Your task to perform on an android device: turn smart compose on in the gmail app Image 0: 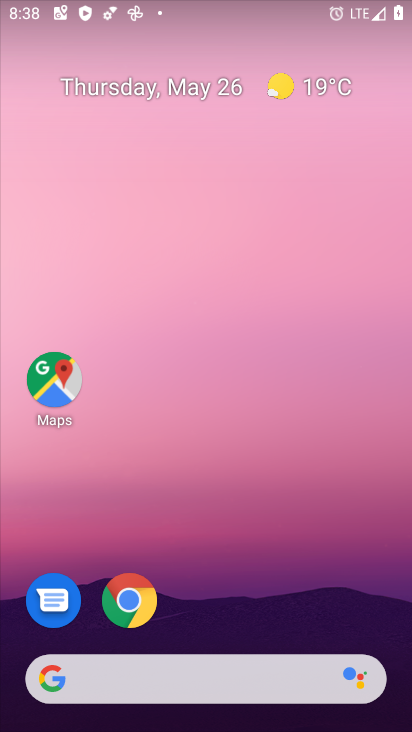
Step 0: press home button
Your task to perform on an android device: turn smart compose on in the gmail app Image 1: 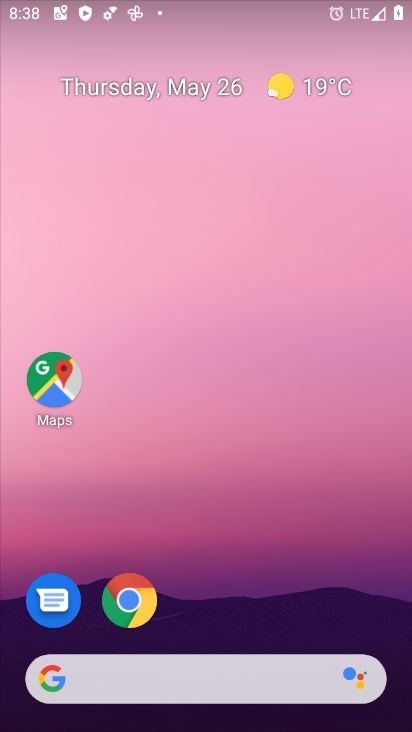
Step 1: drag from (298, 632) to (262, 2)
Your task to perform on an android device: turn smart compose on in the gmail app Image 2: 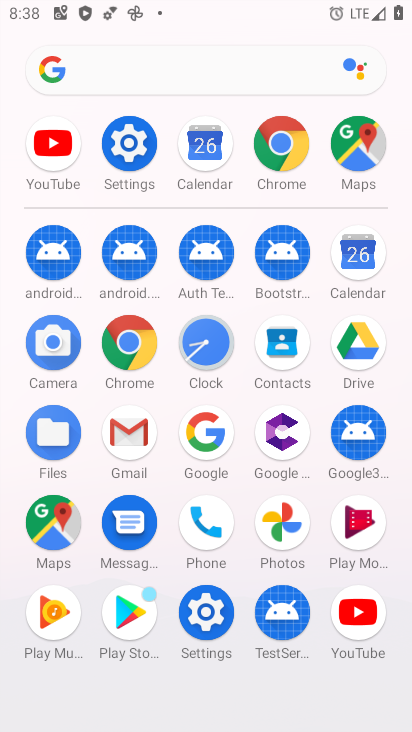
Step 2: click (127, 430)
Your task to perform on an android device: turn smart compose on in the gmail app Image 3: 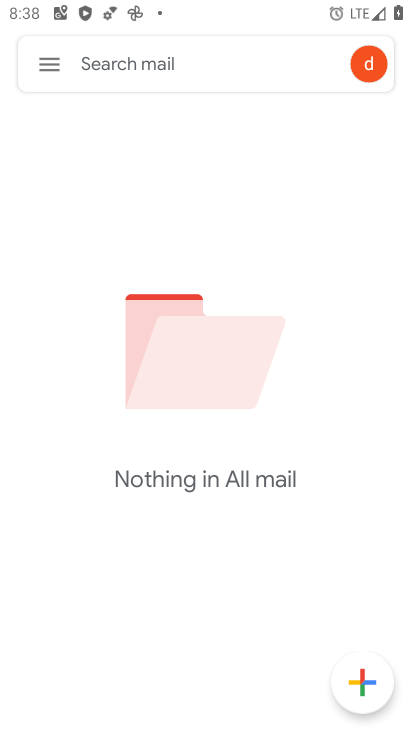
Step 3: click (62, 74)
Your task to perform on an android device: turn smart compose on in the gmail app Image 4: 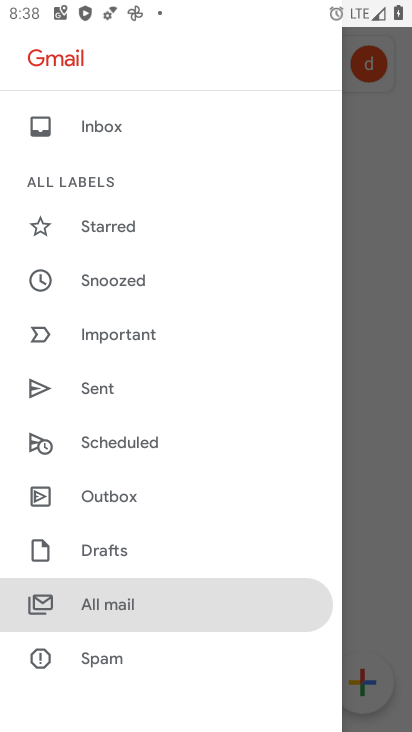
Step 4: drag from (230, 544) to (189, 2)
Your task to perform on an android device: turn smart compose on in the gmail app Image 5: 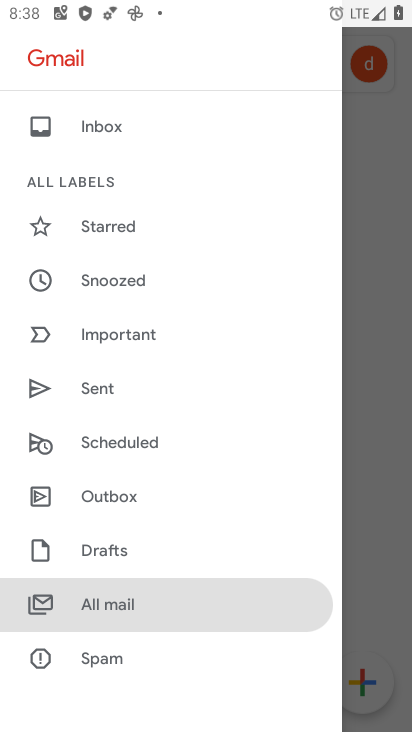
Step 5: drag from (276, 467) to (248, 7)
Your task to perform on an android device: turn smart compose on in the gmail app Image 6: 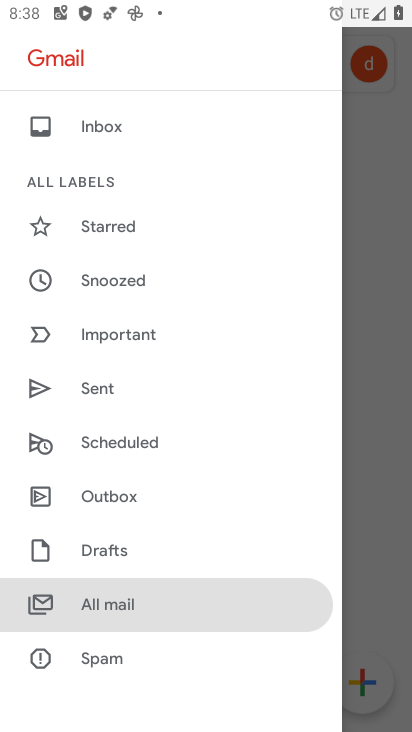
Step 6: drag from (247, 477) to (213, 101)
Your task to perform on an android device: turn smart compose on in the gmail app Image 7: 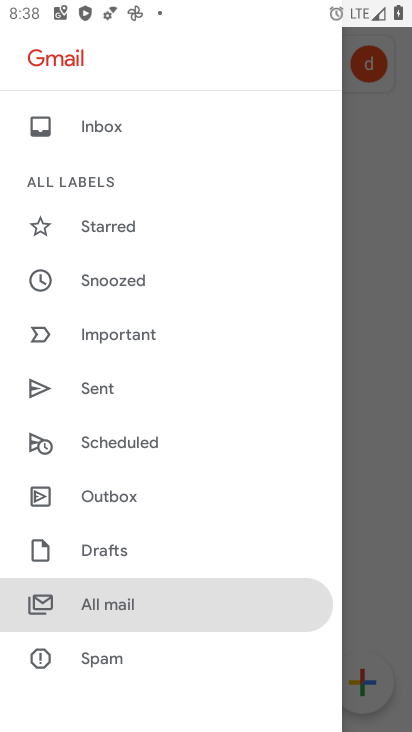
Step 7: drag from (253, 534) to (242, 49)
Your task to perform on an android device: turn smart compose on in the gmail app Image 8: 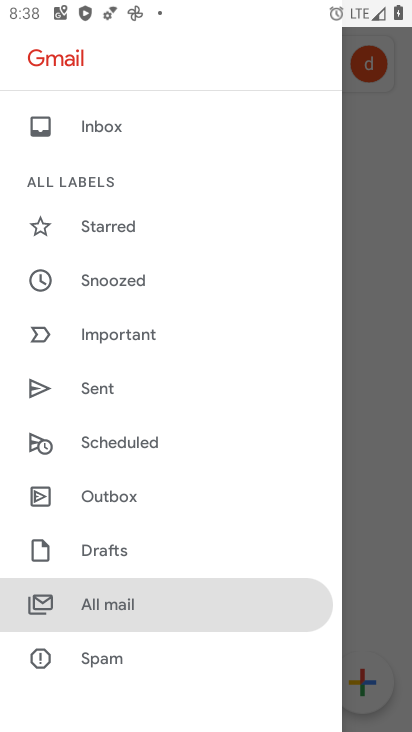
Step 8: click (340, 150)
Your task to perform on an android device: turn smart compose on in the gmail app Image 9: 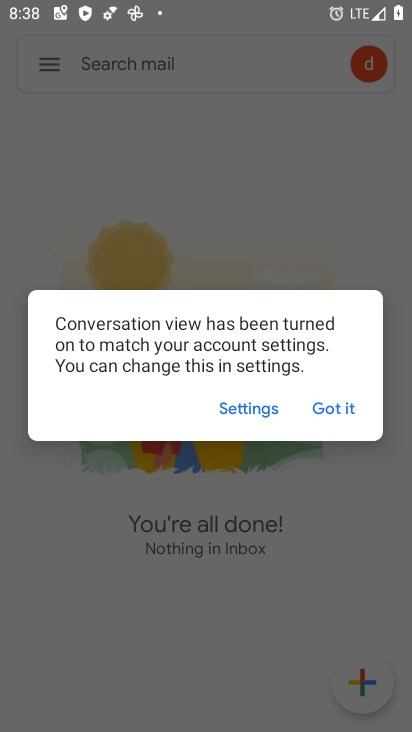
Step 9: click (329, 410)
Your task to perform on an android device: turn smart compose on in the gmail app Image 10: 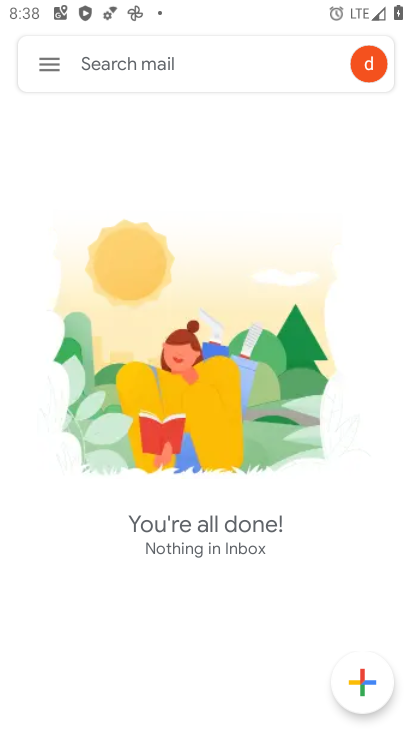
Step 10: click (40, 76)
Your task to perform on an android device: turn smart compose on in the gmail app Image 11: 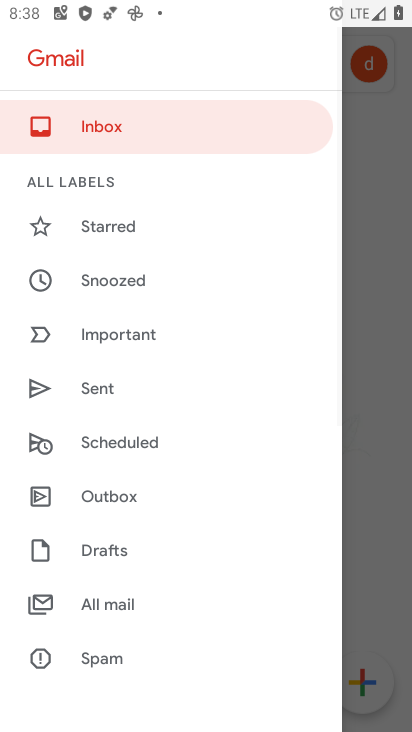
Step 11: drag from (250, 608) to (312, 36)
Your task to perform on an android device: turn smart compose on in the gmail app Image 12: 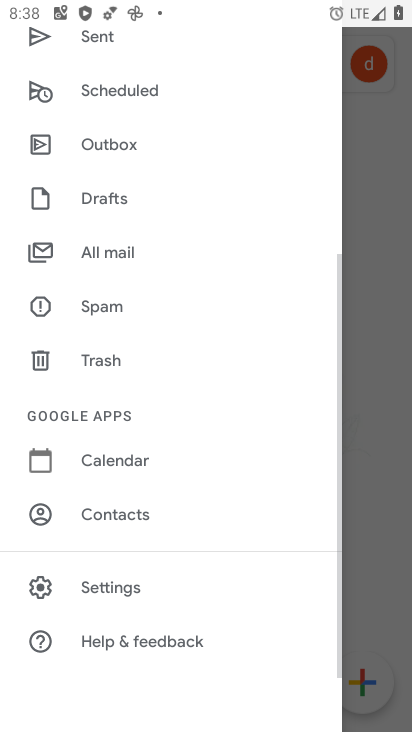
Step 12: click (107, 593)
Your task to perform on an android device: turn smart compose on in the gmail app Image 13: 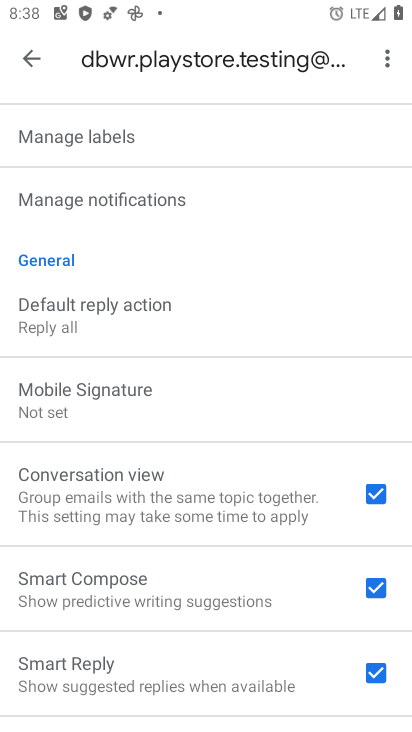
Step 13: task complete